Your task to perform on an android device: delete a single message in the gmail app Image 0: 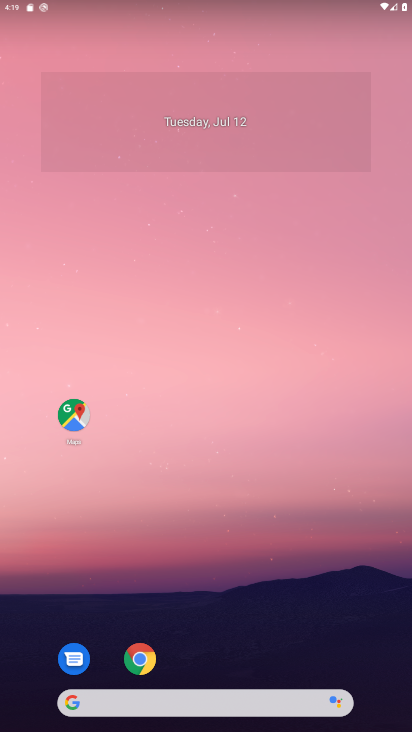
Step 0: drag from (58, 642) to (229, 244)
Your task to perform on an android device: delete a single message in the gmail app Image 1: 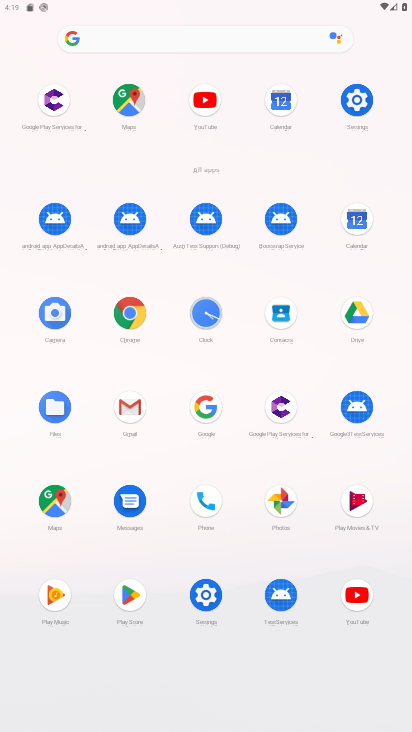
Step 1: click (142, 410)
Your task to perform on an android device: delete a single message in the gmail app Image 2: 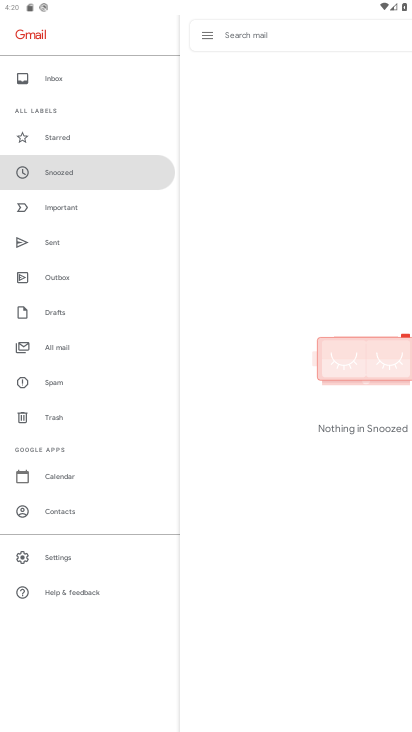
Step 2: click (65, 81)
Your task to perform on an android device: delete a single message in the gmail app Image 3: 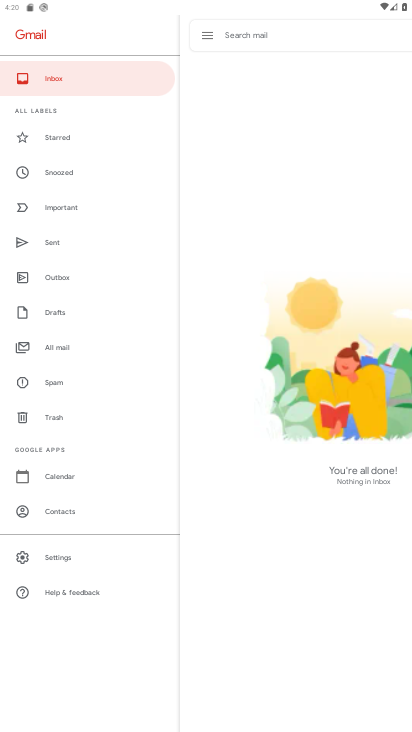
Step 3: task complete